Your task to perform on an android device: clear all cookies in the chrome app Image 0: 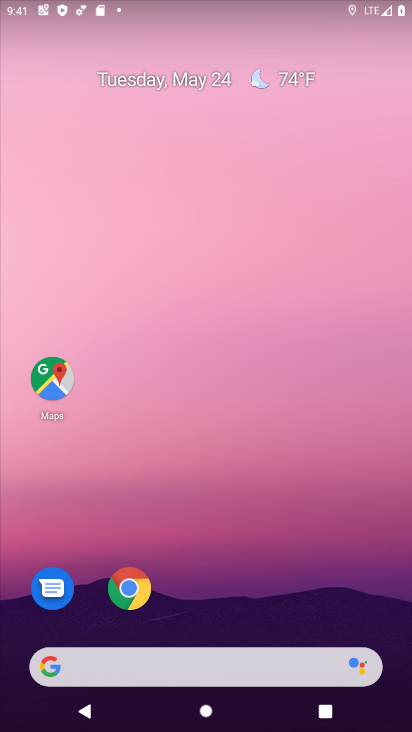
Step 0: drag from (239, 546) to (206, 42)
Your task to perform on an android device: clear all cookies in the chrome app Image 1: 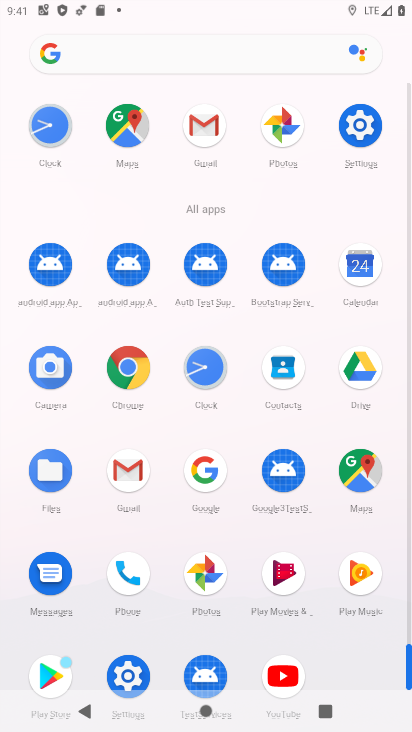
Step 1: drag from (6, 541) to (3, 286)
Your task to perform on an android device: clear all cookies in the chrome app Image 2: 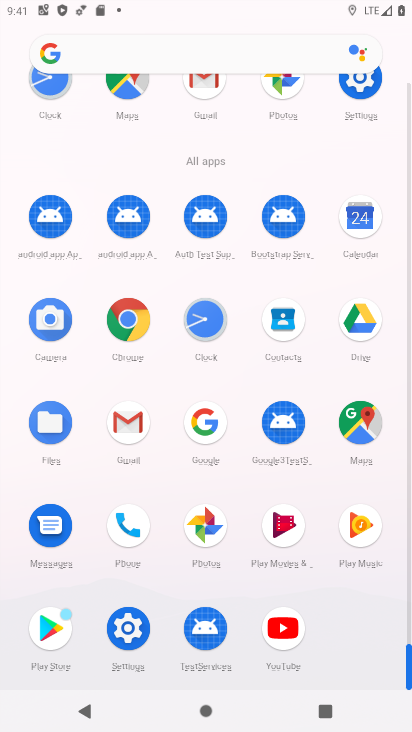
Step 2: click (138, 316)
Your task to perform on an android device: clear all cookies in the chrome app Image 3: 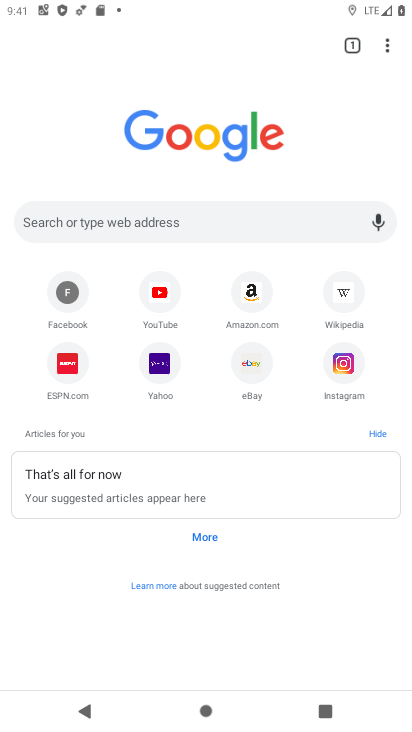
Step 3: drag from (383, 49) to (236, 384)
Your task to perform on an android device: clear all cookies in the chrome app Image 4: 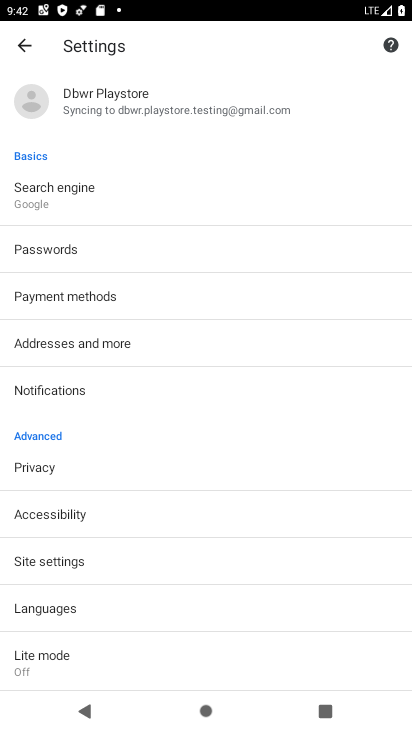
Step 4: click (75, 464)
Your task to perform on an android device: clear all cookies in the chrome app Image 5: 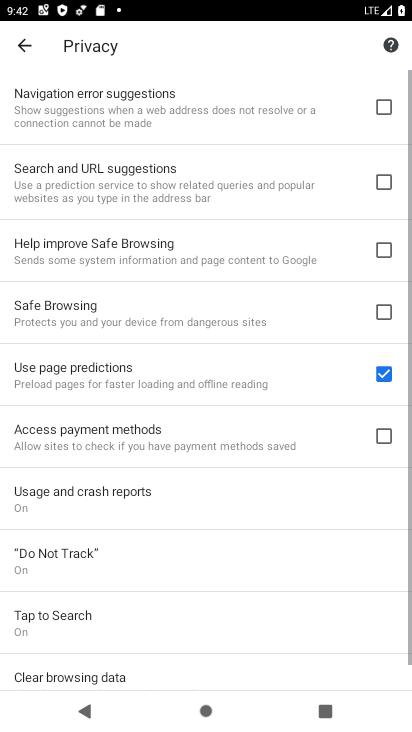
Step 5: drag from (294, 545) to (254, 60)
Your task to perform on an android device: clear all cookies in the chrome app Image 6: 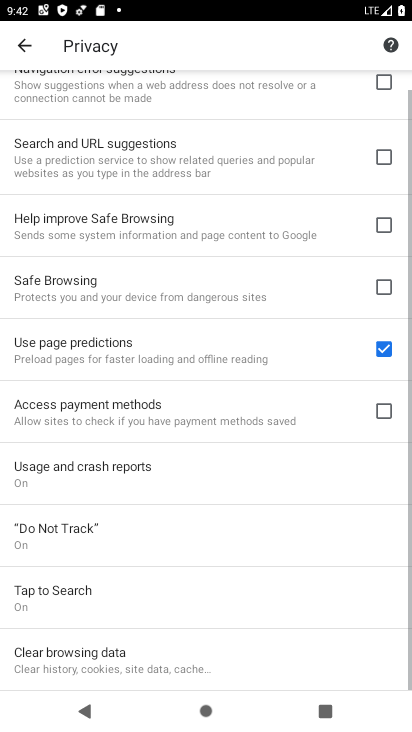
Step 6: click (156, 670)
Your task to perform on an android device: clear all cookies in the chrome app Image 7: 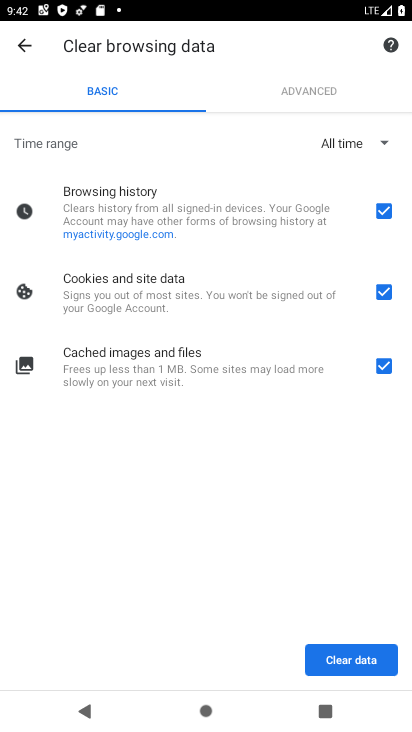
Step 7: click (383, 211)
Your task to perform on an android device: clear all cookies in the chrome app Image 8: 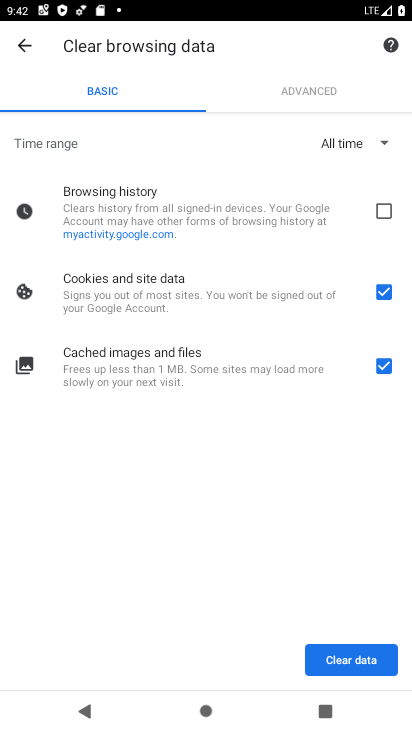
Step 8: click (380, 361)
Your task to perform on an android device: clear all cookies in the chrome app Image 9: 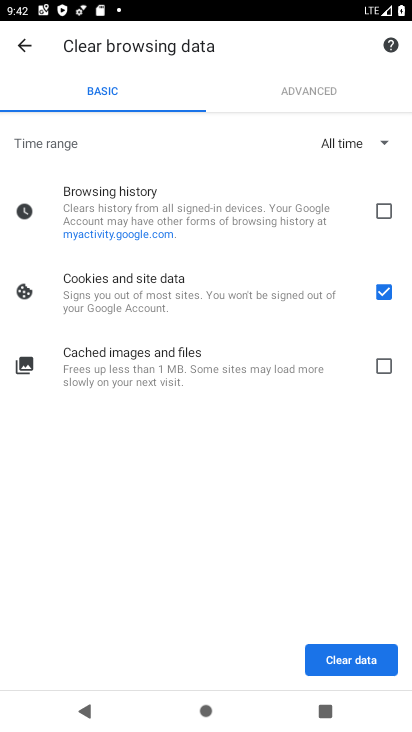
Step 9: click (386, 658)
Your task to perform on an android device: clear all cookies in the chrome app Image 10: 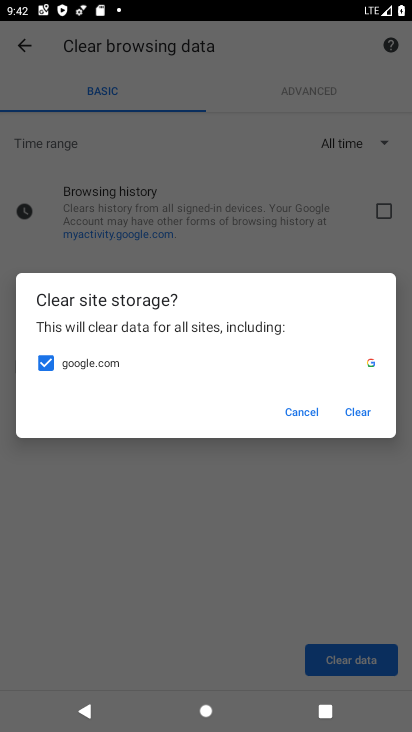
Step 10: click (356, 412)
Your task to perform on an android device: clear all cookies in the chrome app Image 11: 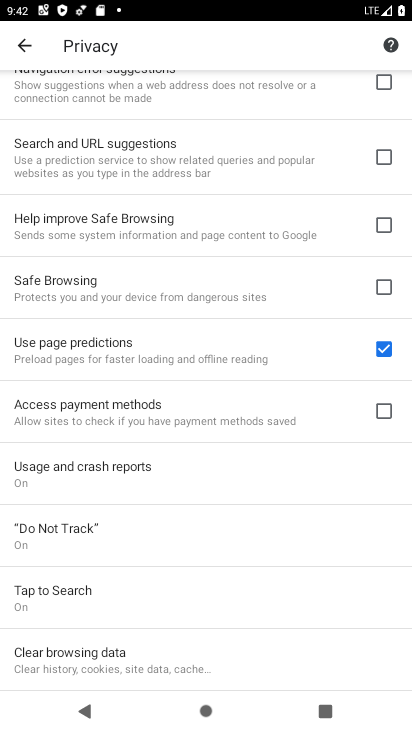
Step 11: task complete